Your task to perform on an android device: show emergency info Image 0: 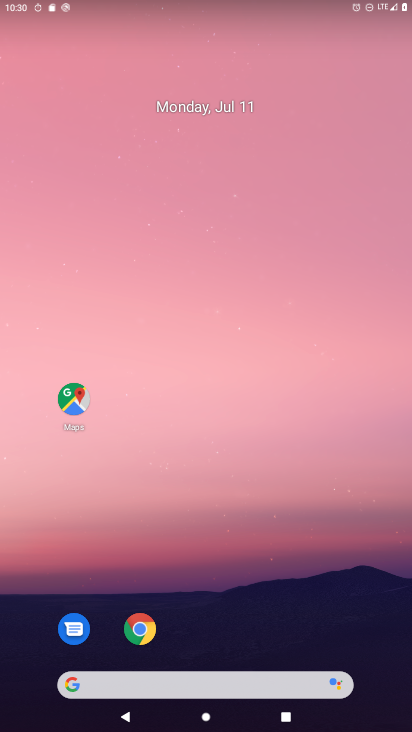
Step 0: drag from (304, 9) to (319, 416)
Your task to perform on an android device: show emergency info Image 1: 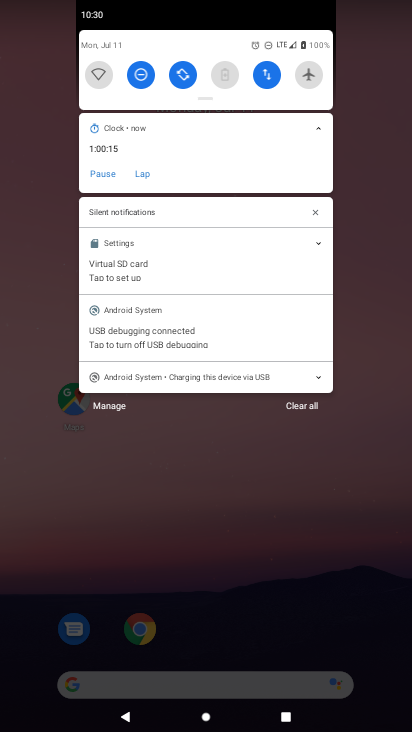
Step 1: drag from (198, 41) to (236, 418)
Your task to perform on an android device: show emergency info Image 2: 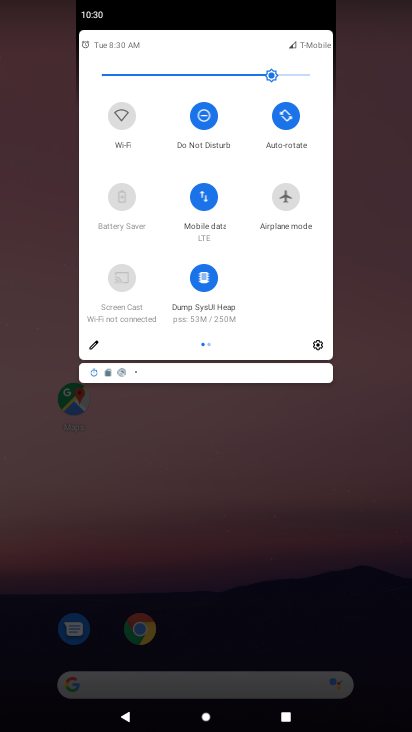
Step 2: click (324, 358)
Your task to perform on an android device: show emergency info Image 3: 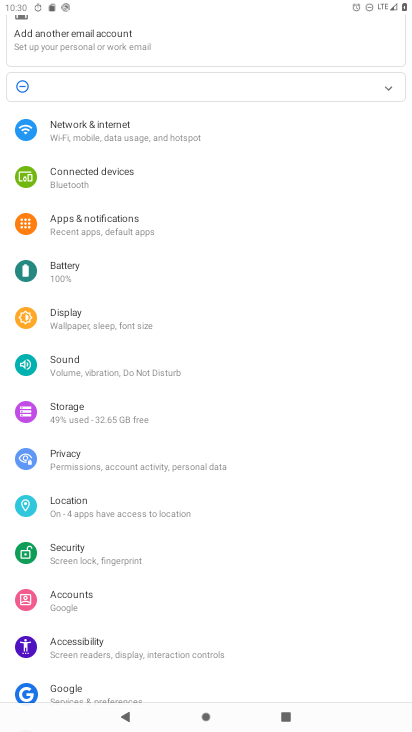
Step 3: drag from (117, 509) to (66, 15)
Your task to perform on an android device: show emergency info Image 4: 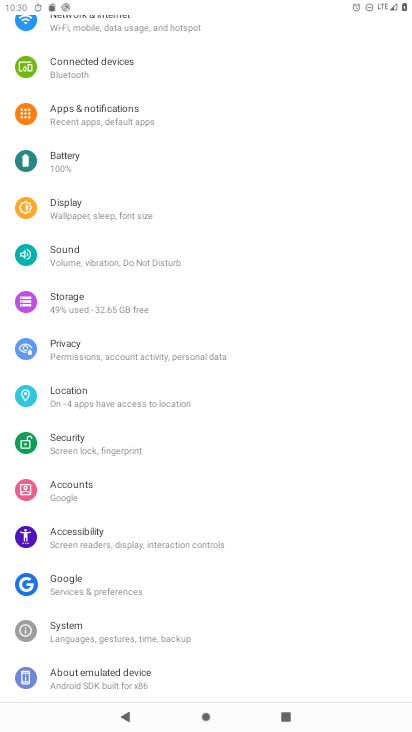
Step 4: click (165, 663)
Your task to perform on an android device: show emergency info Image 5: 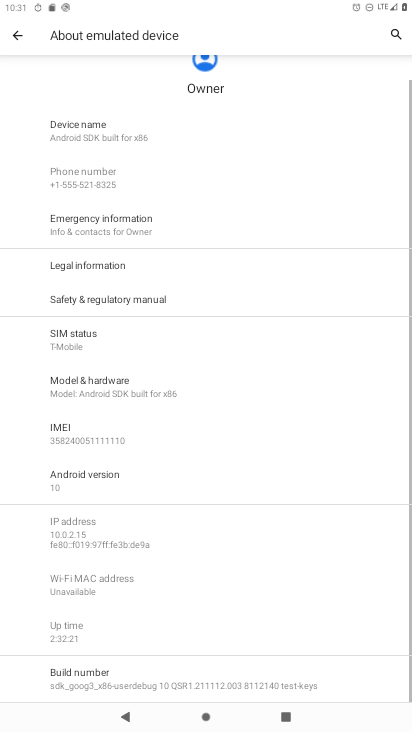
Step 5: click (42, 217)
Your task to perform on an android device: show emergency info Image 6: 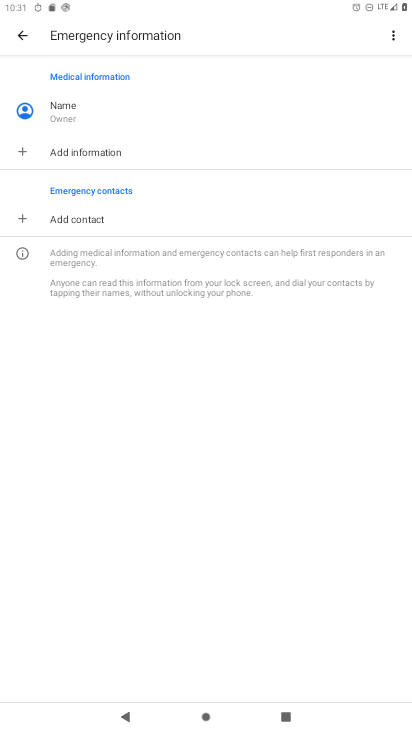
Step 6: task complete